Your task to perform on an android device: turn notification dots on Image 0: 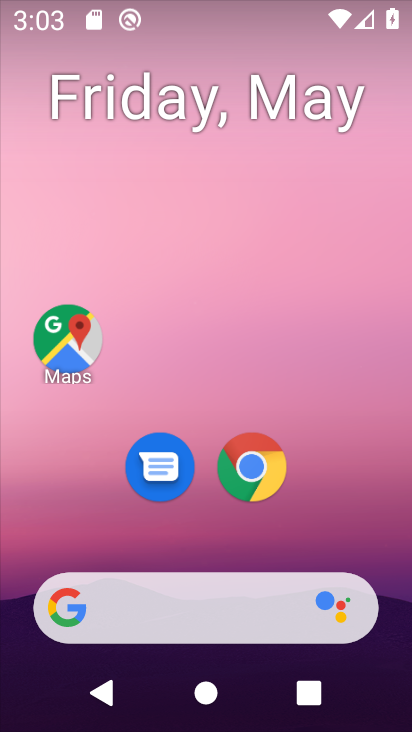
Step 0: drag from (322, 477) to (201, 17)
Your task to perform on an android device: turn notification dots on Image 1: 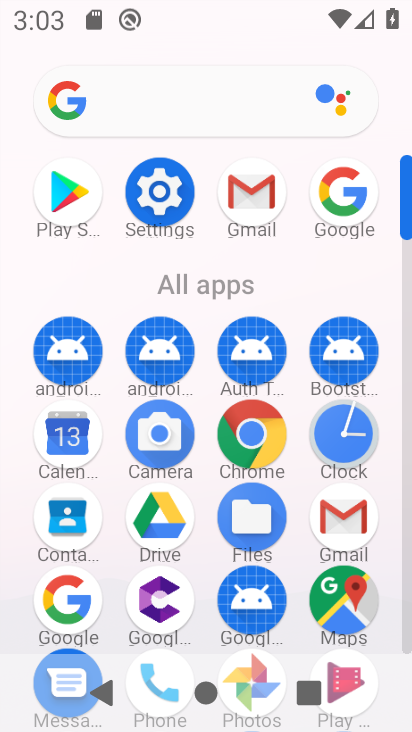
Step 1: click (156, 186)
Your task to perform on an android device: turn notification dots on Image 2: 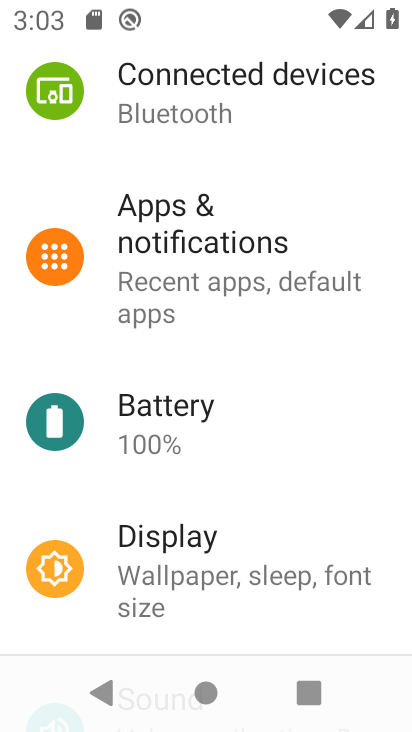
Step 2: click (244, 246)
Your task to perform on an android device: turn notification dots on Image 3: 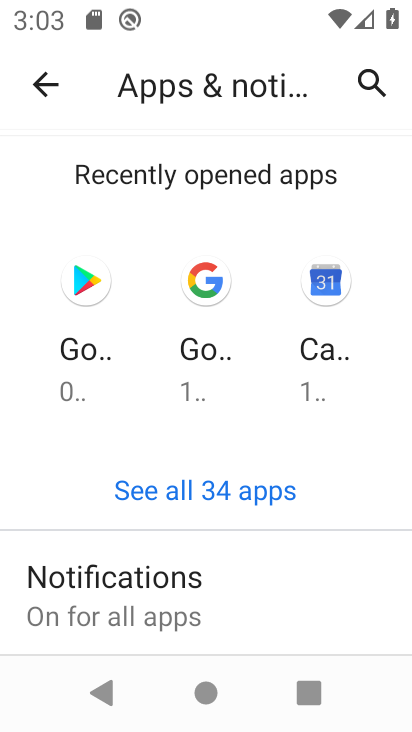
Step 3: drag from (275, 601) to (263, 191)
Your task to perform on an android device: turn notification dots on Image 4: 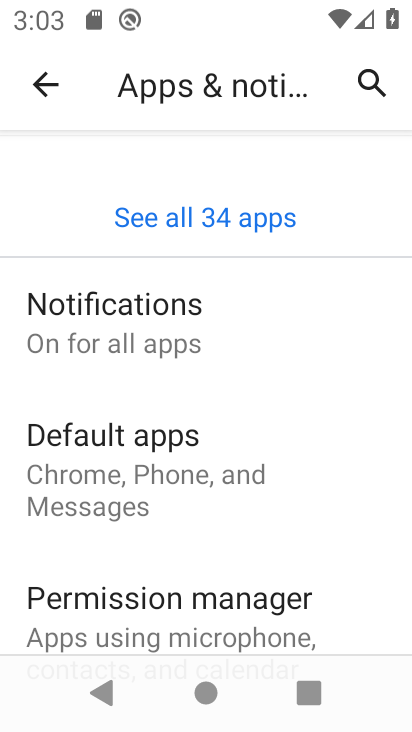
Step 4: click (183, 317)
Your task to perform on an android device: turn notification dots on Image 5: 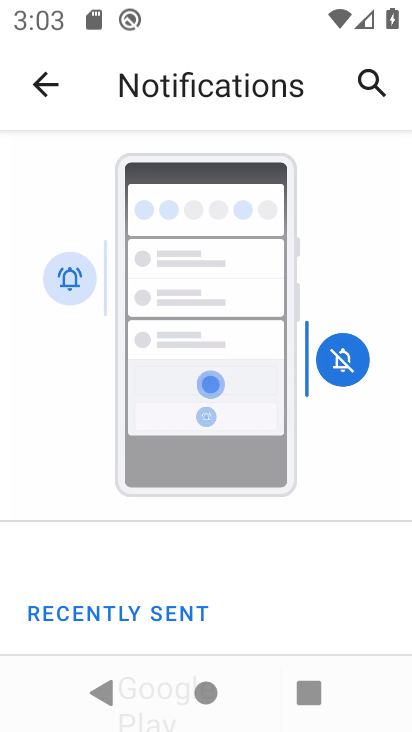
Step 5: drag from (283, 581) to (227, 181)
Your task to perform on an android device: turn notification dots on Image 6: 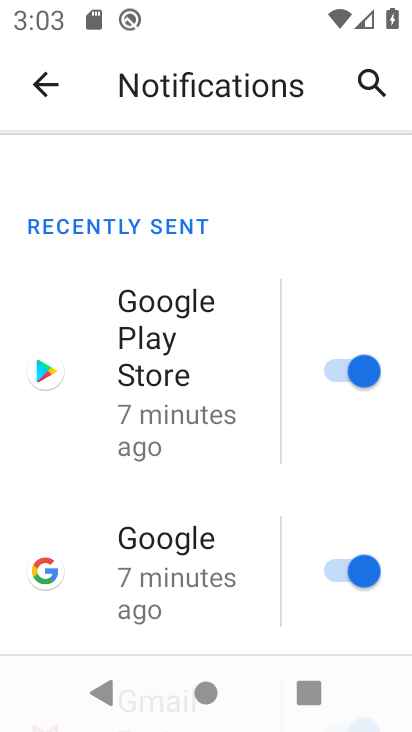
Step 6: drag from (190, 488) to (190, 156)
Your task to perform on an android device: turn notification dots on Image 7: 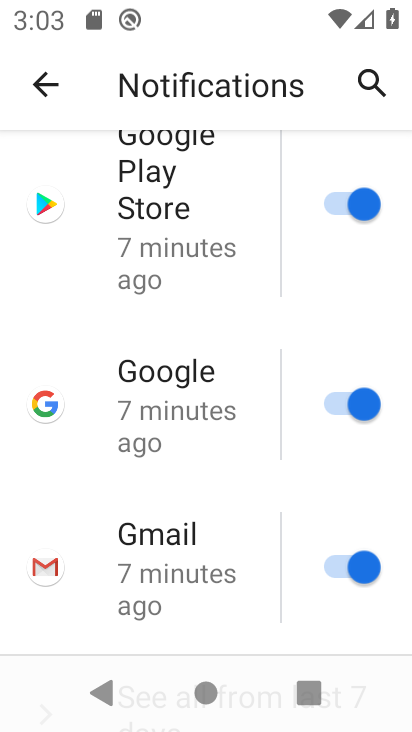
Step 7: drag from (186, 577) to (203, 235)
Your task to perform on an android device: turn notification dots on Image 8: 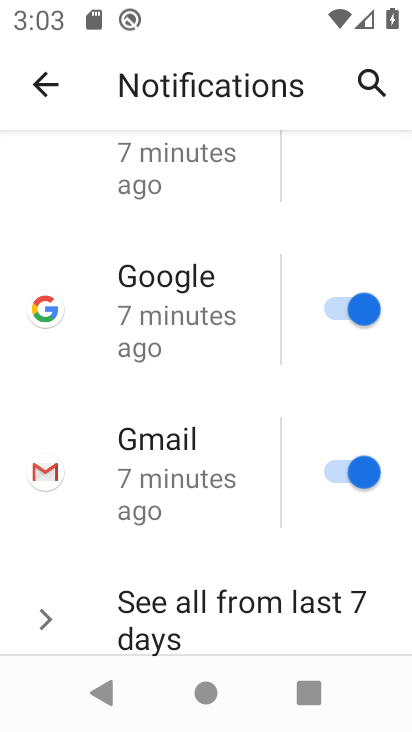
Step 8: drag from (204, 478) to (203, 336)
Your task to perform on an android device: turn notification dots on Image 9: 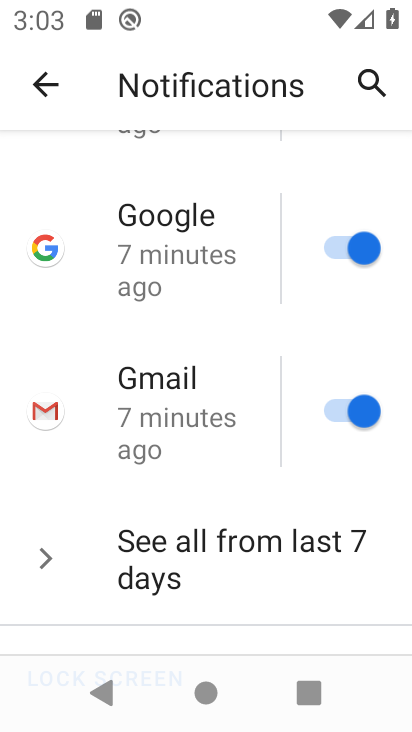
Step 9: drag from (205, 550) to (193, 251)
Your task to perform on an android device: turn notification dots on Image 10: 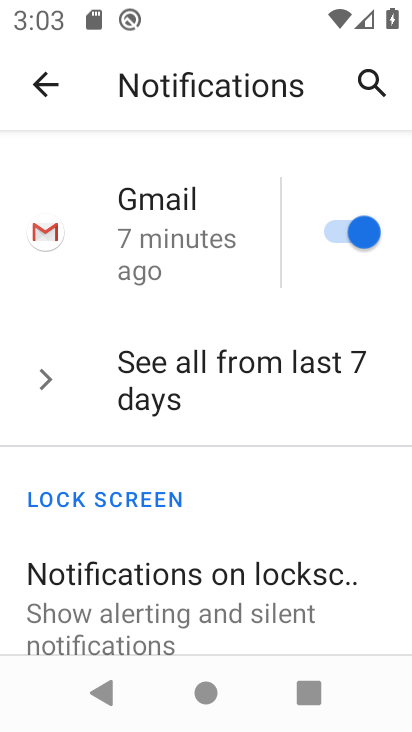
Step 10: drag from (228, 540) to (188, 174)
Your task to perform on an android device: turn notification dots on Image 11: 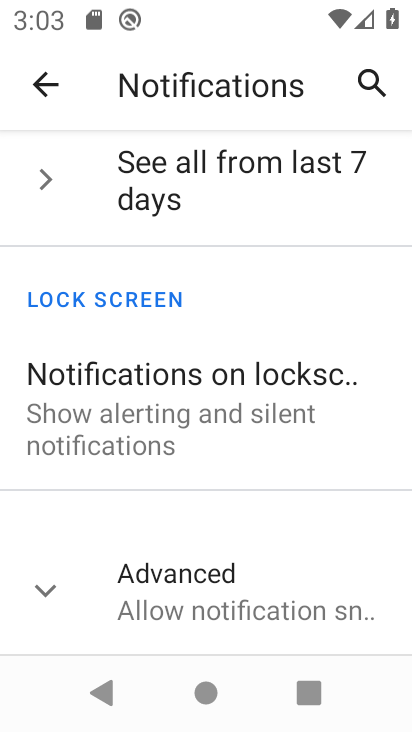
Step 11: click (204, 591)
Your task to perform on an android device: turn notification dots on Image 12: 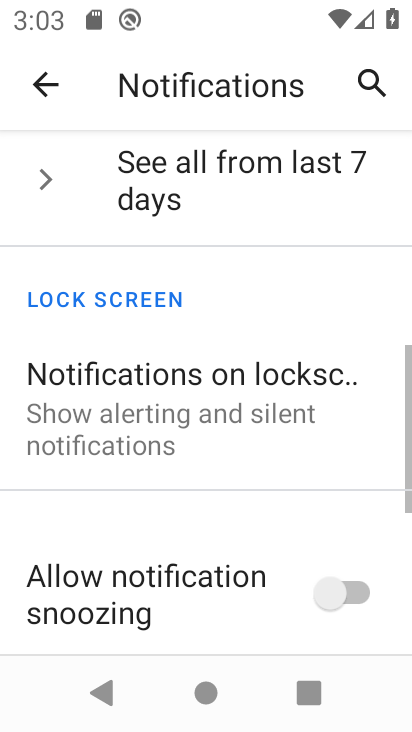
Step 12: task complete